Your task to perform on an android device: What's the weather today? Image 0: 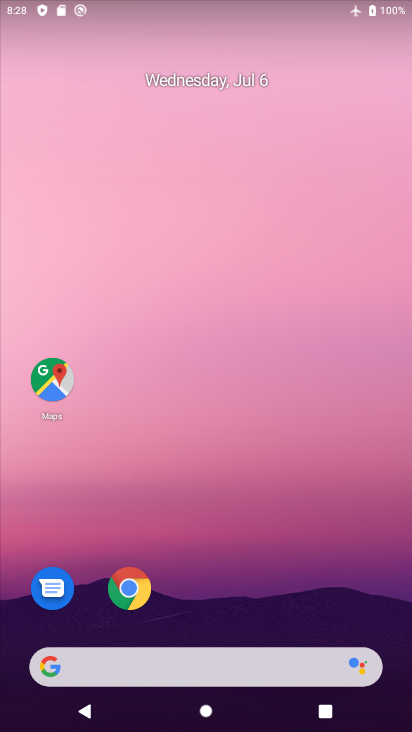
Step 0: click (206, 662)
Your task to perform on an android device: What's the weather today? Image 1: 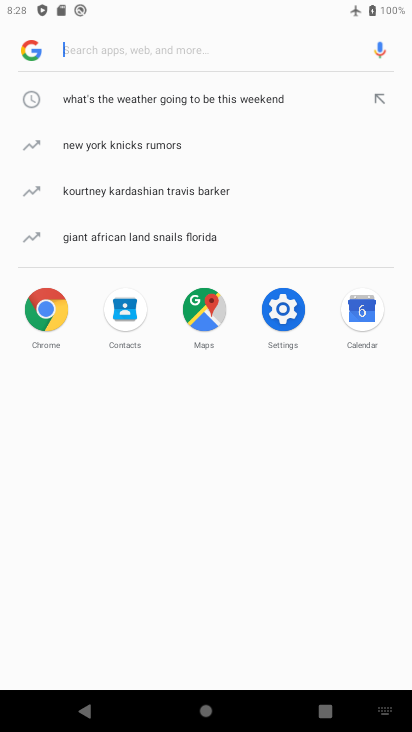
Step 1: type "What's the weather today"
Your task to perform on an android device: What's the weather today? Image 2: 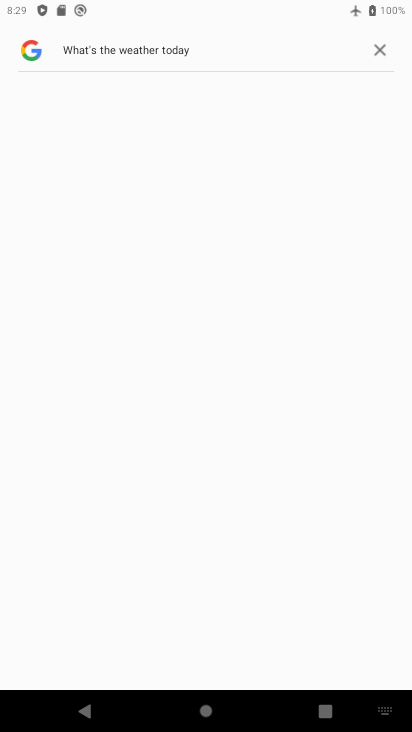
Step 2: click (242, 48)
Your task to perform on an android device: What's the weather today? Image 3: 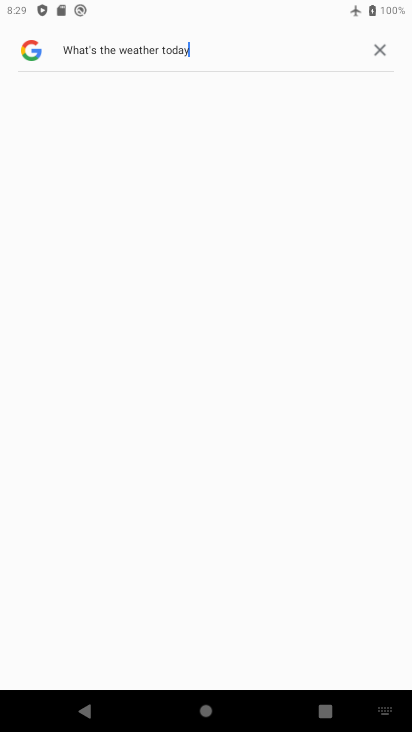
Step 3: task complete